Your task to perform on an android device: toggle priority inbox in the gmail app Image 0: 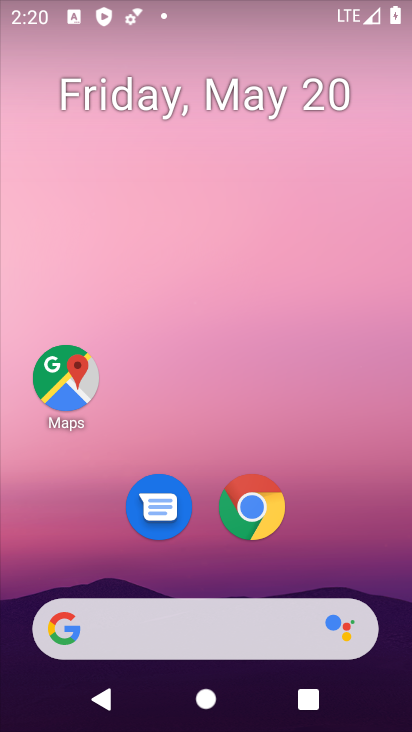
Step 0: drag from (181, 574) to (221, 91)
Your task to perform on an android device: toggle priority inbox in the gmail app Image 1: 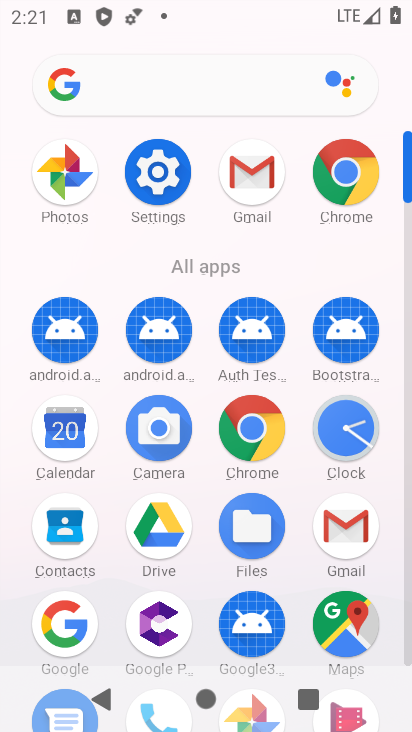
Step 1: click (253, 175)
Your task to perform on an android device: toggle priority inbox in the gmail app Image 2: 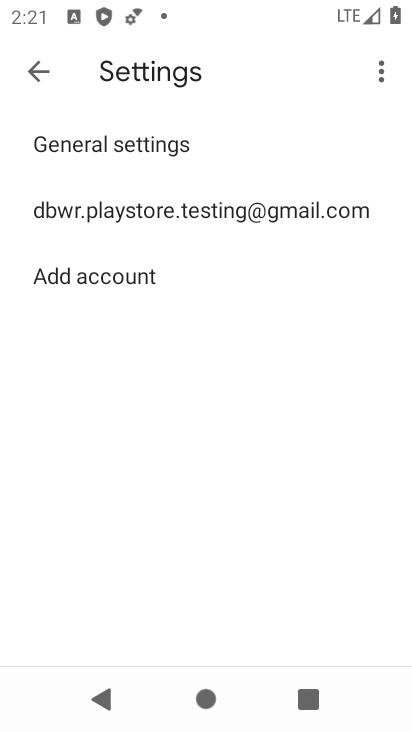
Step 2: click (228, 204)
Your task to perform on an android device: toggle priority inbox in the gmail app Image 3: 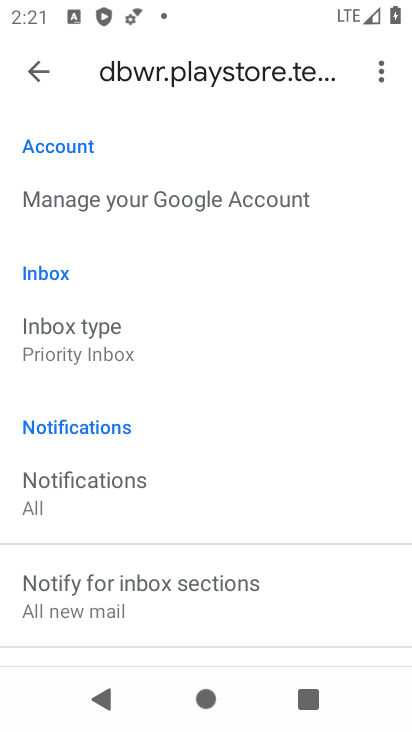
Step 3: click (192, 368)
Your task to perform on an android device: toggle priority inbox in the gmail app Image 4: 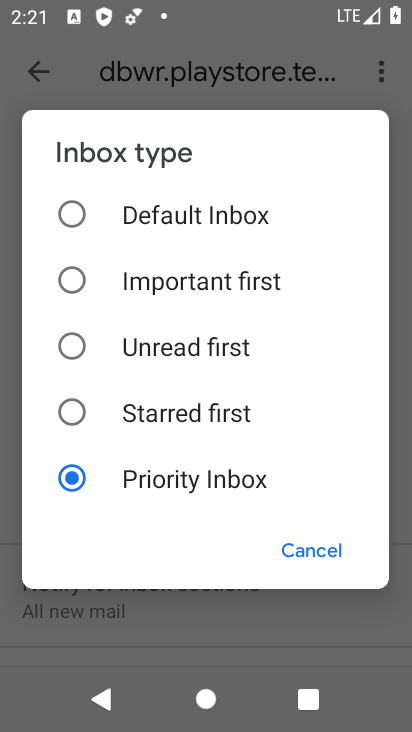
Step 4: click (192, 368)
Your task to perform on an android device: toggle priority inbox in the gmail app Image 5: 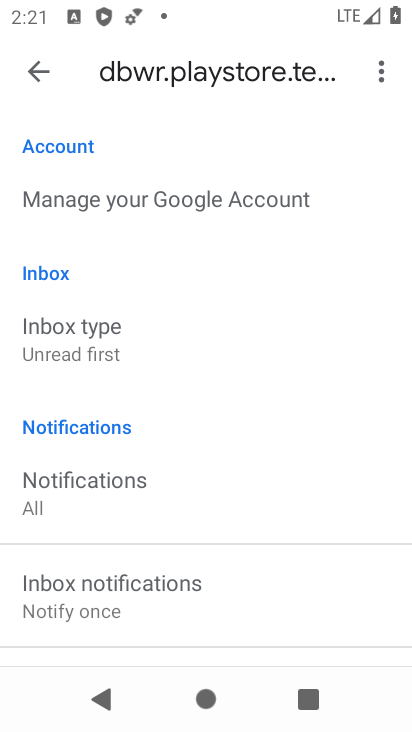
Step 5: task complete